Your task to perform on an android device: all mails in gmail Image 0: 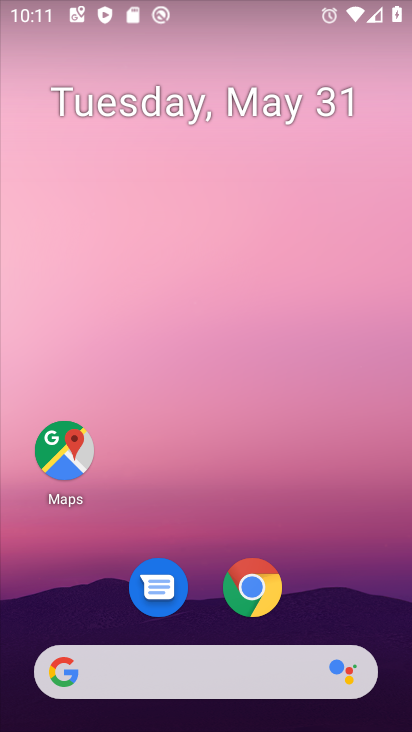
Step 0: drag from (377, 595) to (357, 229)
Your task to perform on an android device: all mails in gmail Image 1: 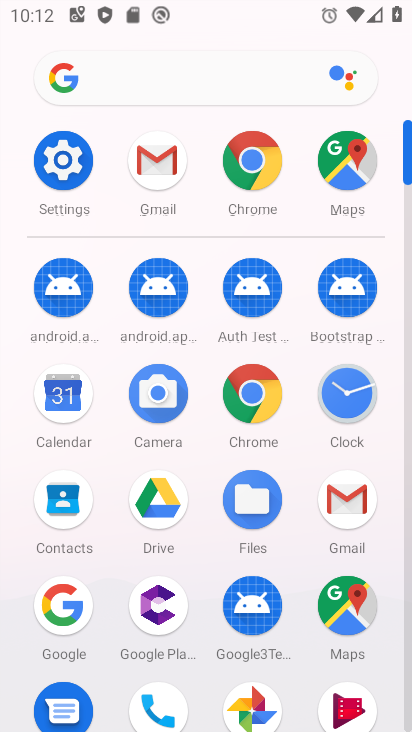
Step 1: click (342, 487)
Your task to perform on an android device: all mails in gmail Image 2: 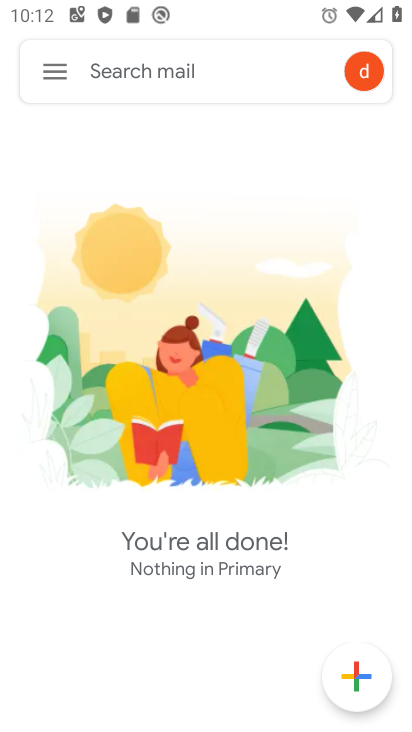
Step 2: click (64, 80)
Your task to perform on an android device: all mails in gmail Image 3: 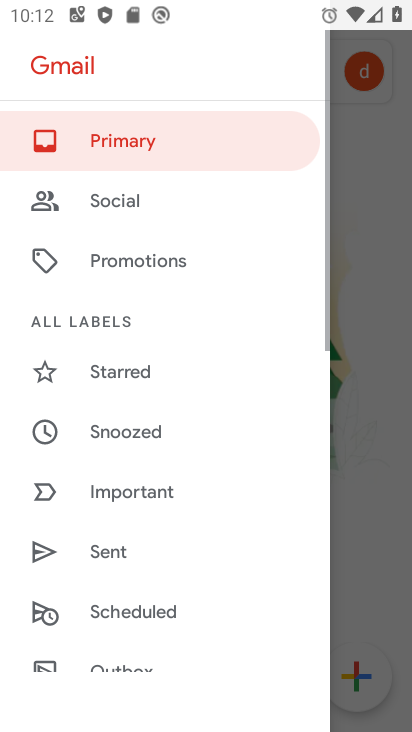
Step 3: drag from (257, 418) to (240, 341)
Your task to perform on an android device: all mails in gmail Image 4: 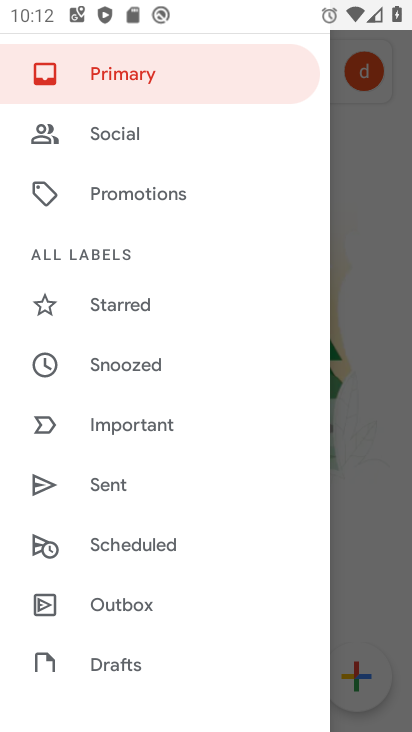
Step 4: drag from (247, 438) to (251, 366)
Your task to perform on an android device: all mails in gmail Image 5: 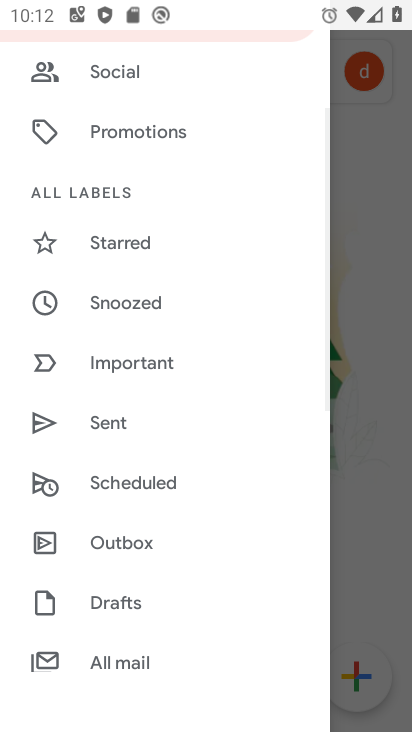
Step 5: drag from (264, 454) to (264, 377)
Your task to perform on an android device: all mails in gmail Image 6: 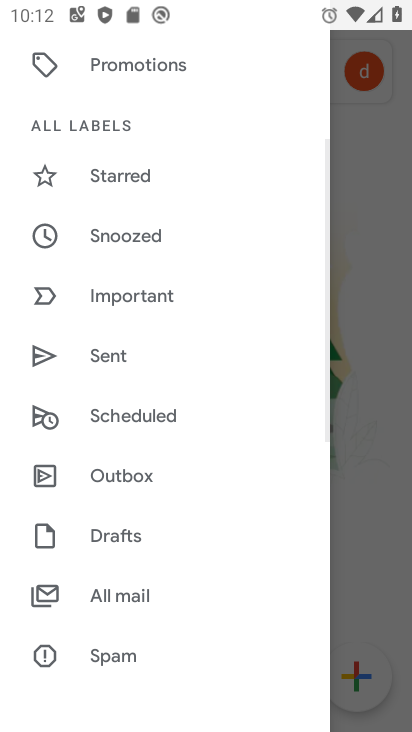
Step 6: drag from (260, 468) to (266, 404)
Your task to perform on an android device: all mails in gmail Image 7: 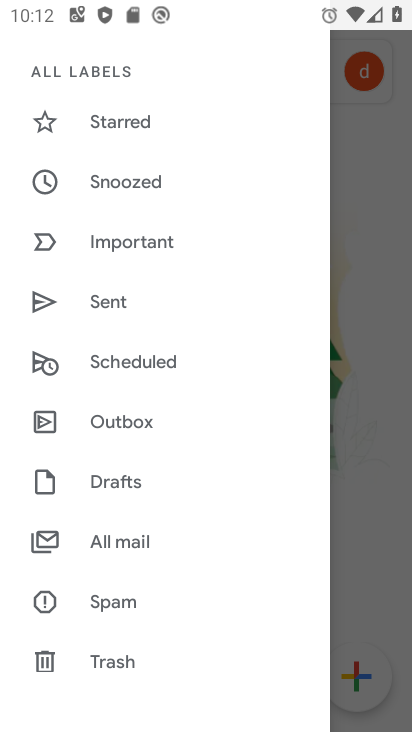
Step 7: drag from (255, 453) to (264, 378)
Your task to perform on an android device: all mails in gmail Image 8: 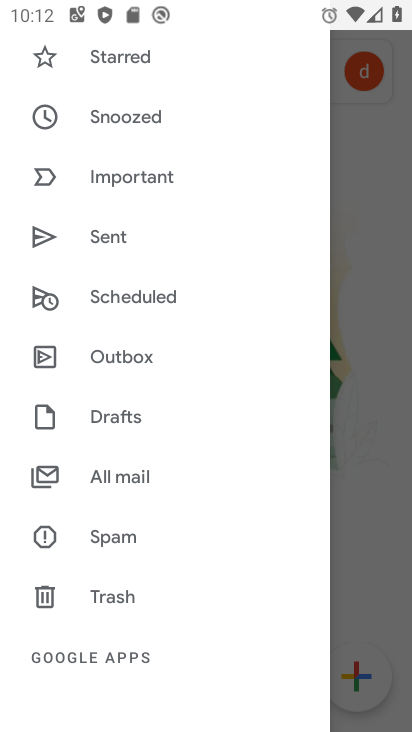
Step 8: drag from (251, 469) to (242, 382)
Your task to perform on an android device: all mails in gmail Image 9: 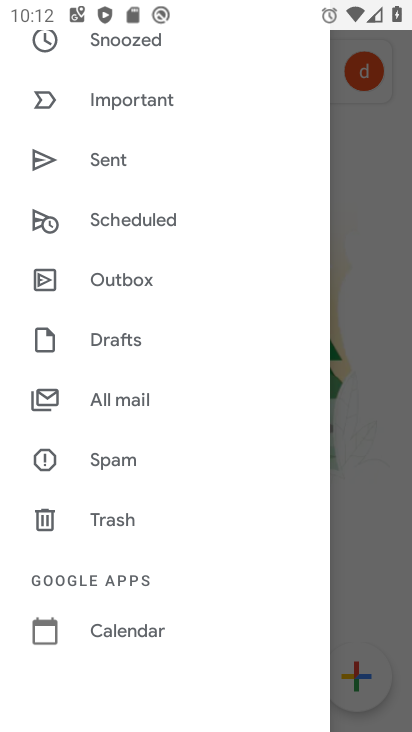
Step 9: click (194, 402)
Your task to perform on an android device: all mails in gmail Image 10: 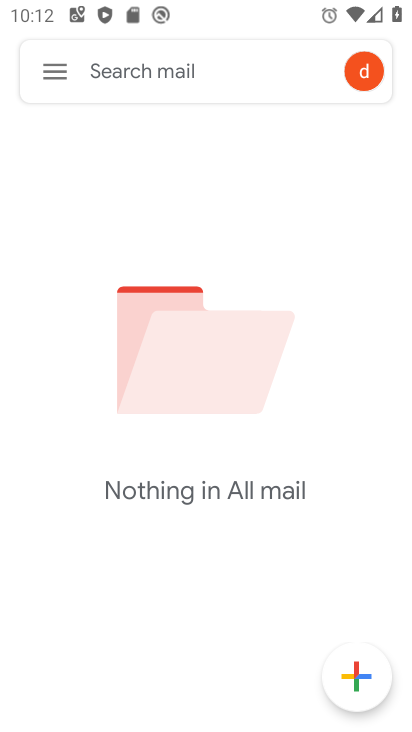
Step 10: task complete